Your task to perform on an android device: uninstall "Google Home" Image 0: 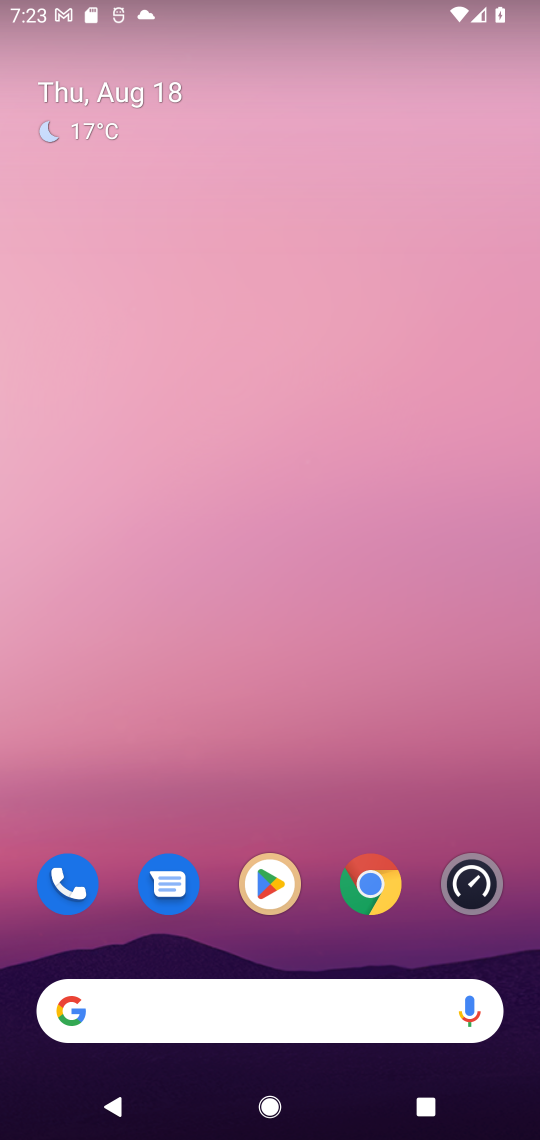
Step 0: drag from (285, 1009) to (392, 249)
Your task to perform on an android device: uninstall "Google Home" Image 1: 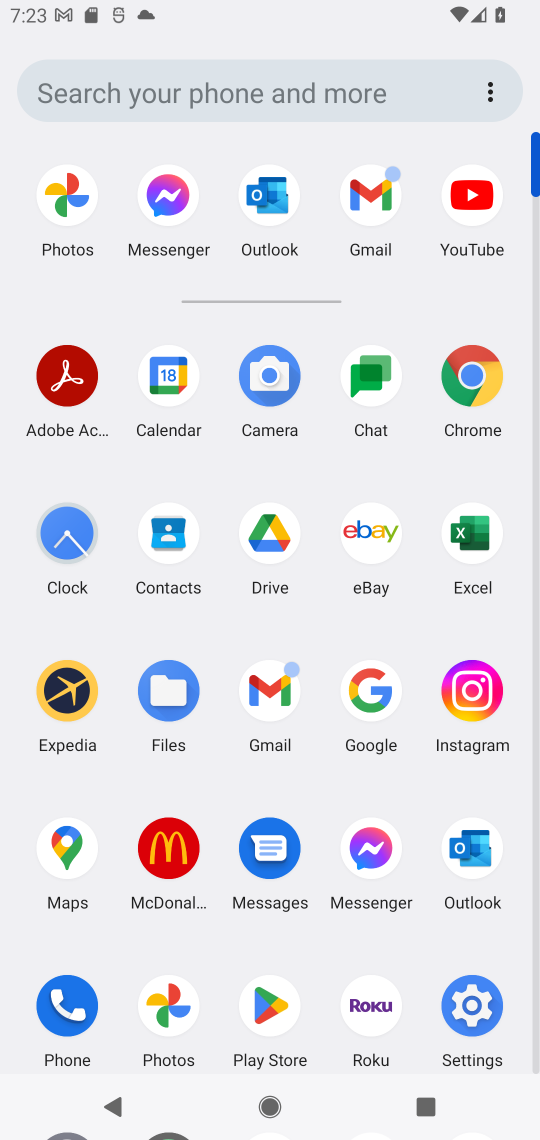
Step 1: click (276, 1008)
Your task to perform on an android device: uninstall "Google Home" Image 2: 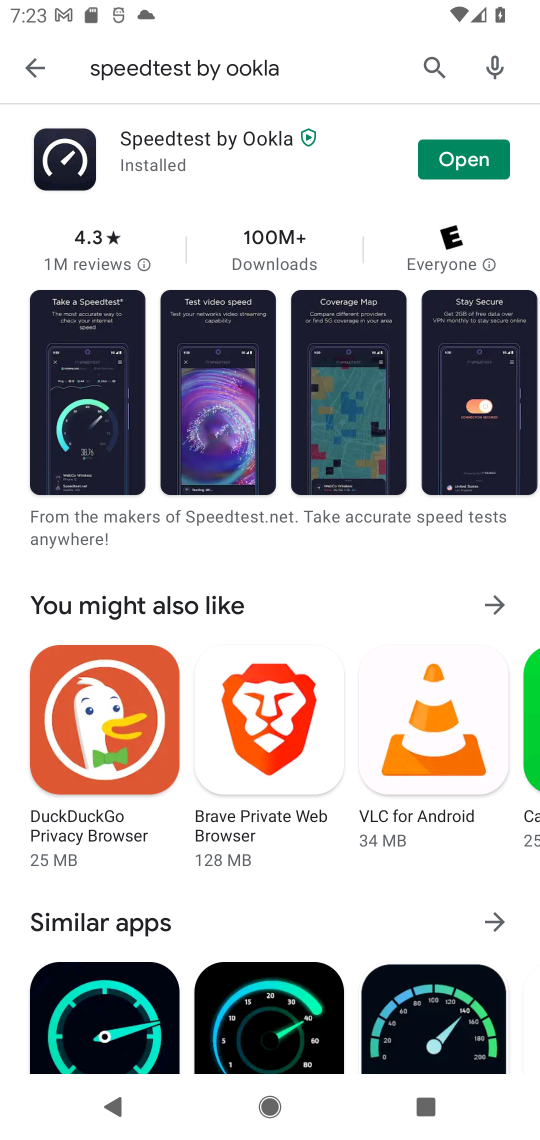
Step 2: press back button
Your task to perform on an android device: uninstall "Google Home" Image 3: 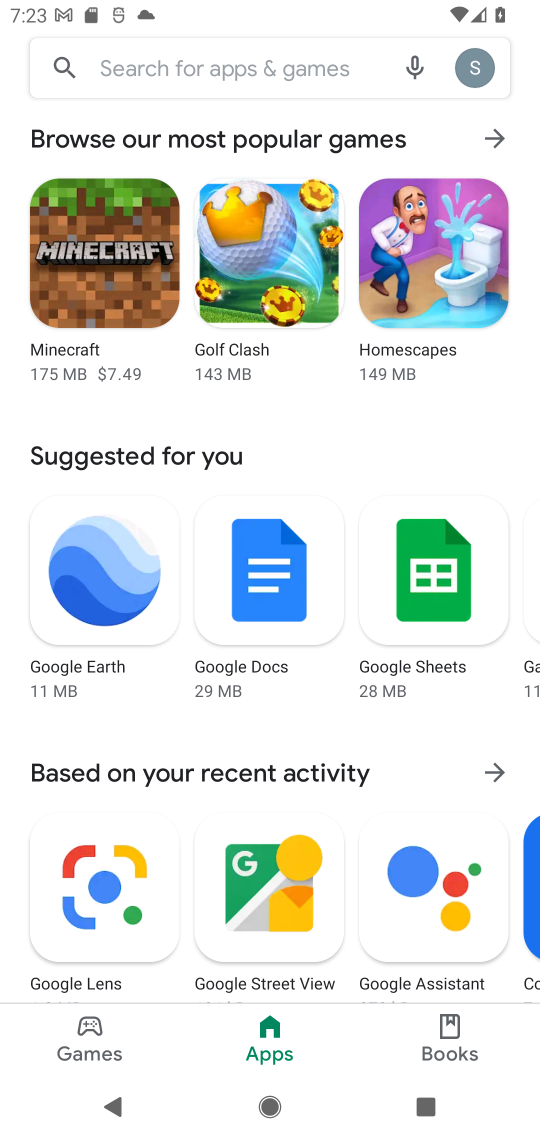
Step 3: click (260, 75)
Your task to perform on an android device: uninstall "Google Home" Image 4: 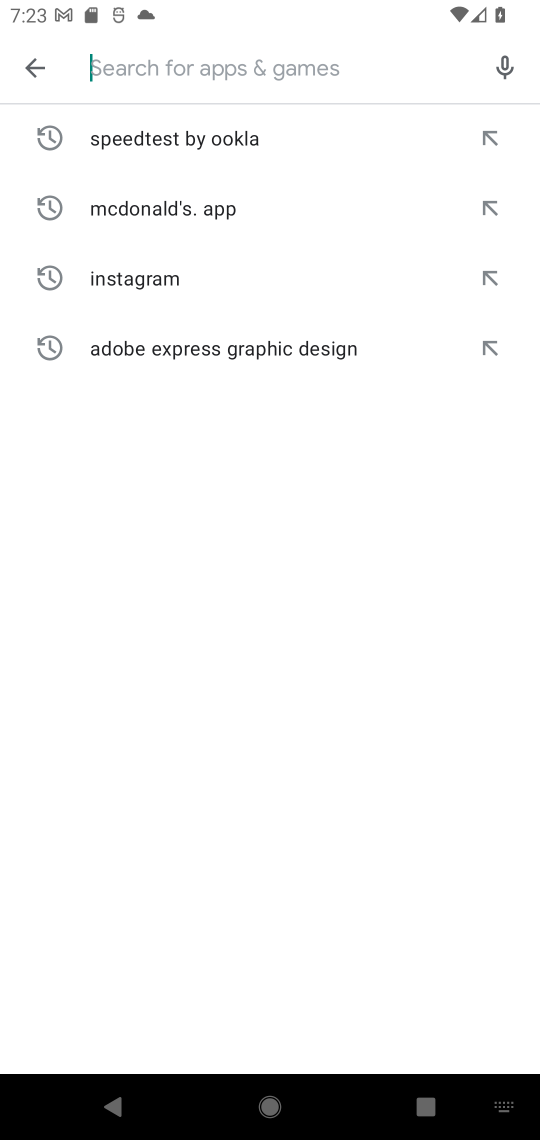
Step 4: type "Google Home"
Your task to perform on an android device: uninstall "Google Home" Image 5: 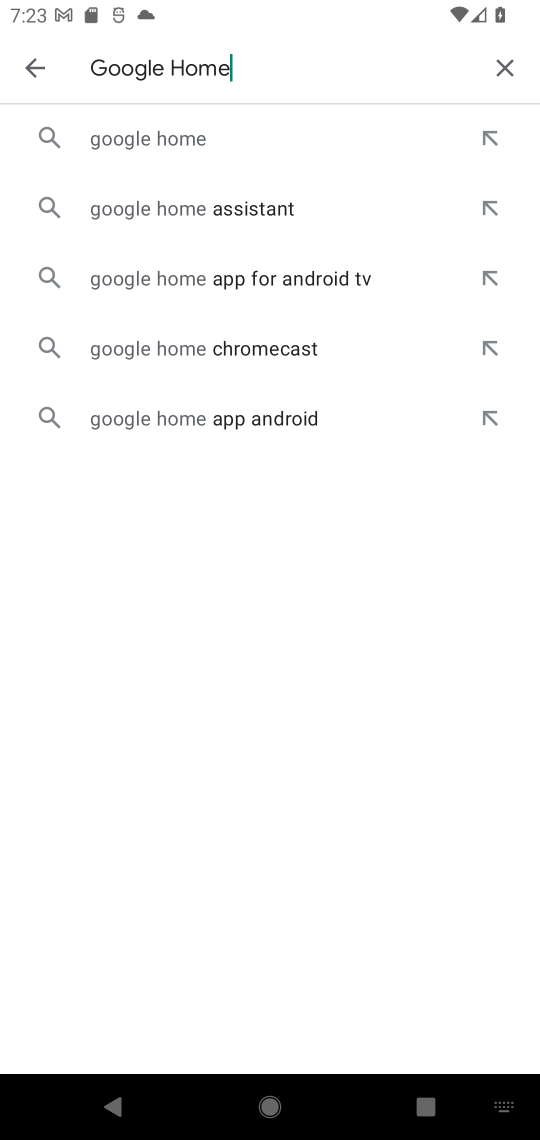
Step 5: click (157, 136)
Your task to perform on an android device: uninstall "Google Home" Image 6: 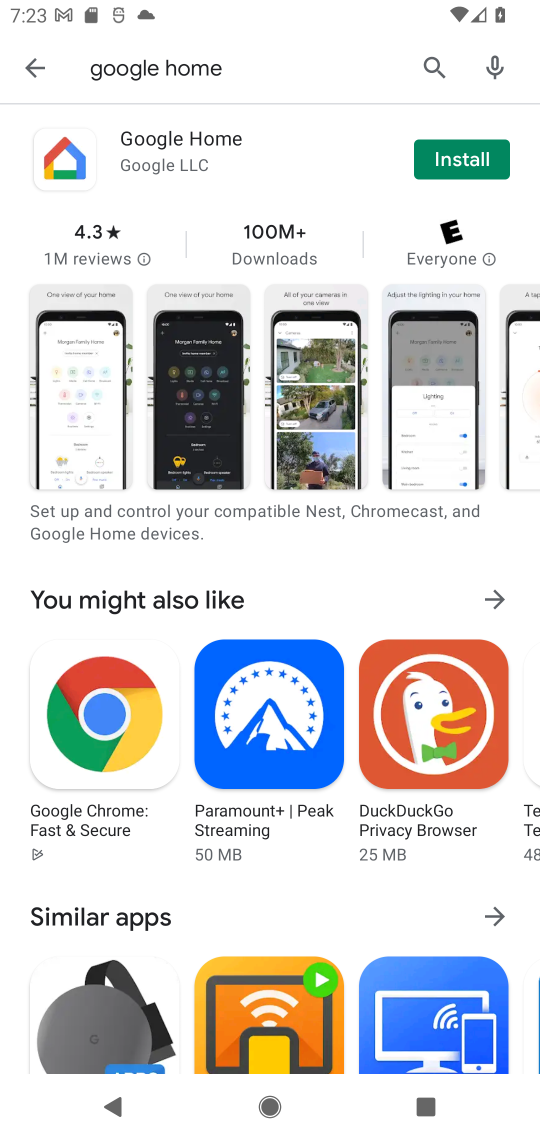
Step 6: task complete